Your task to perform on an android device: turn off smart reply in the gmail app Image 0: 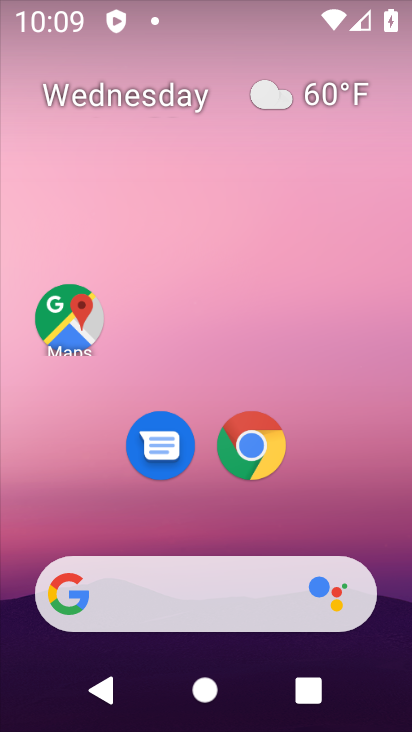
Step 0: drag from (209, 513) to (213, 191)
Your task to perform on an android device: turn off smart reply in the gmail app Image 1: 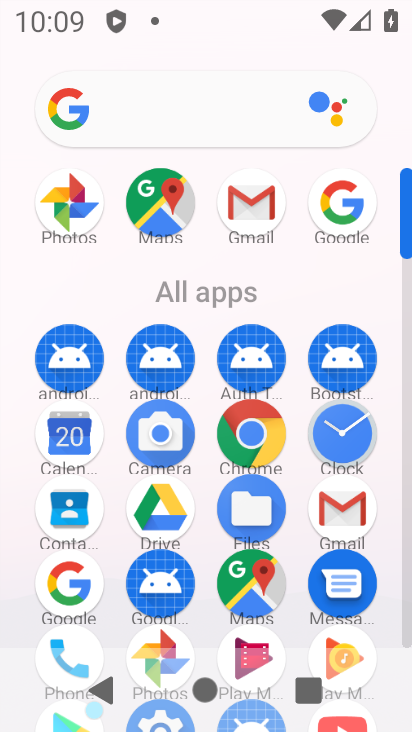
Step 1: click (240, 213)
Your task to perform on an android device: turn off smart reply in the gmail app Image 2: 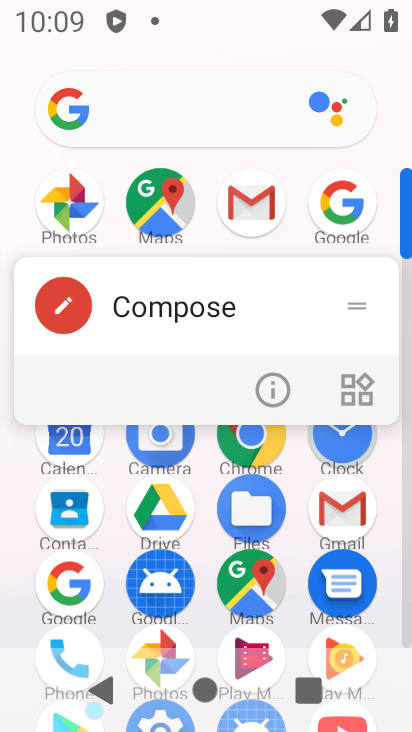
Step 2: click (241, 212)
Your task to perform on an android device: turn off smart reply in the gmail app Image 3: 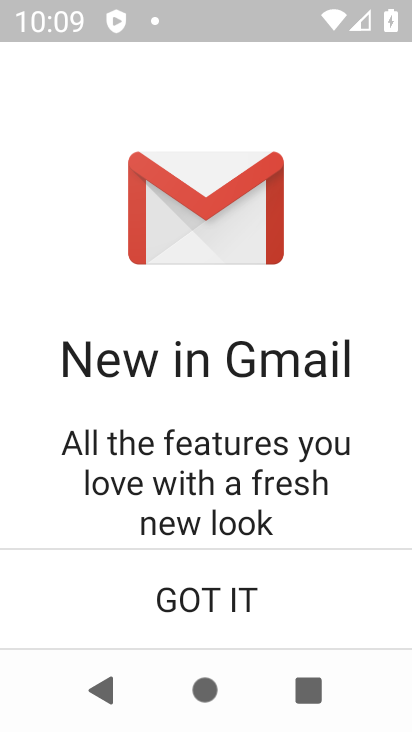
Step 3: click (233, 585)
Your task to perform on an android device: turn off smart reply in the gmail app Image 4: 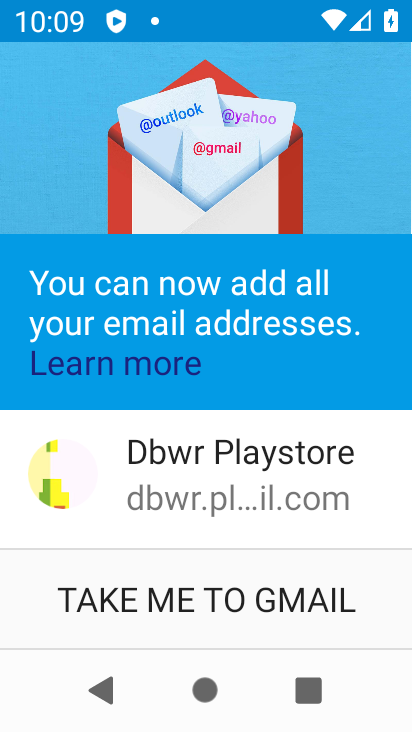
Step 4: click (179, 616)
Your task to perform on an android device: turn off smart reply in the gmail app Image 5: 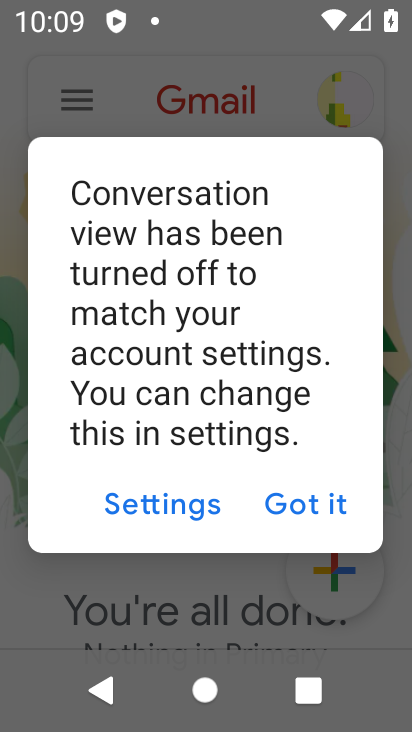
Step 5: click (326, 495)
Your task to perform on an android device: turn off smart reply in the gmail app Image 6: 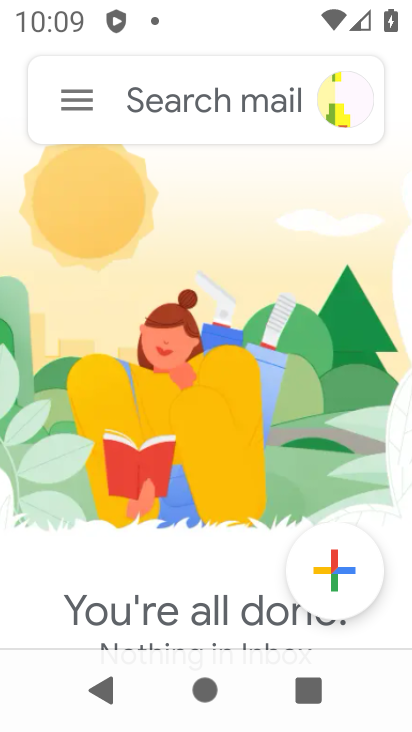
Step 6: click (69, 103)
Your task to perform on an android device: turn off smart reply in the gmail app Image 7: 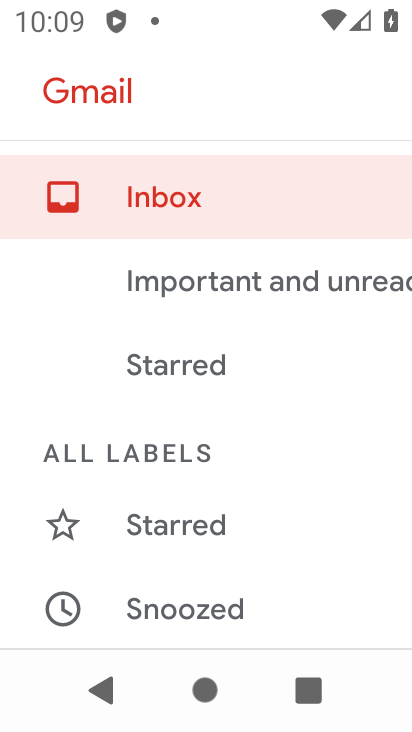
Step 7: drag from (263, 587) to (268, 314)
Your task to perform on an android device: turn off smart reply in the gmail app Image 8: 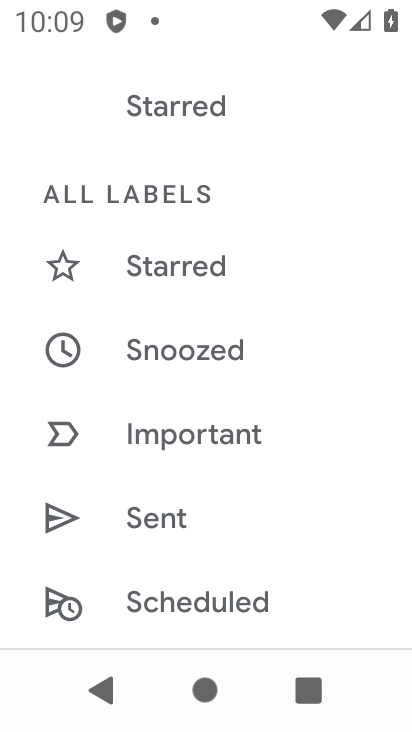
Step 8: drag from (255, 620) to (257, 362)
Your task to perform on an android device: turn off smart reply in the gmail app Image 9: 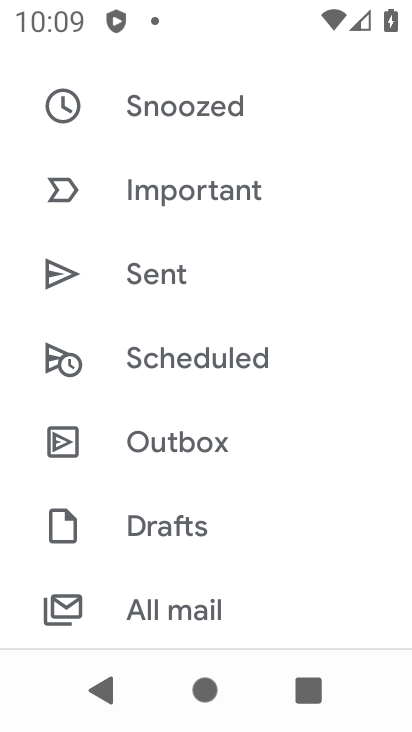
Step 9: drag from (231, 567) to (241, 341)
Your task to perform on an android device: turn off smart reply in the gmail app Image 10: 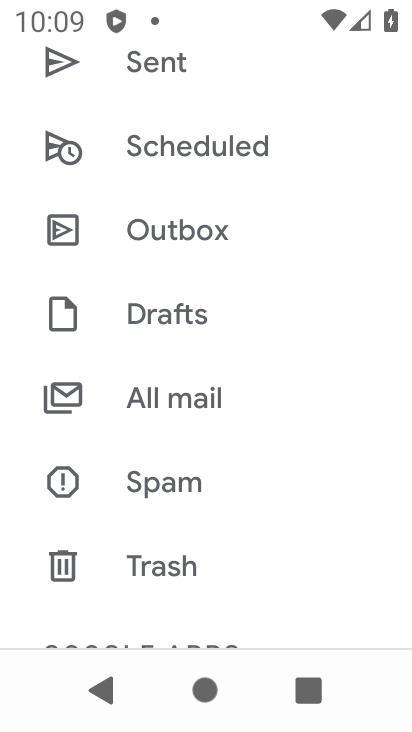
Step 10: drag from (224, 495) to (229, 278)
Your task to perform on an android device: turn off smart reply in the gmail app Image 11: 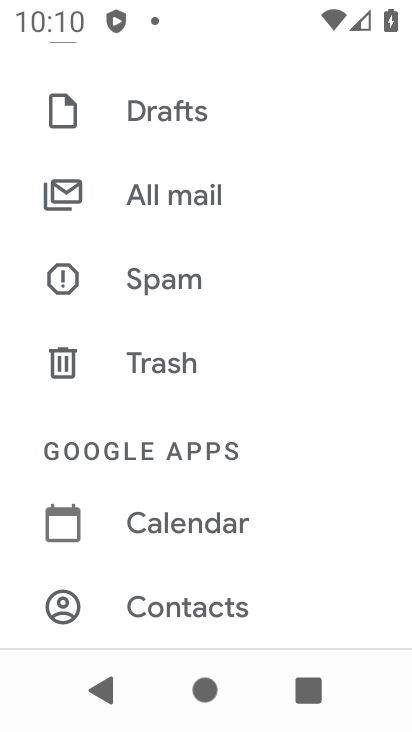
Step 11: drag from (239, 527) to (246, 269)
Your task to perform on an android device: turn off smart reply in the gmail app Image 12: 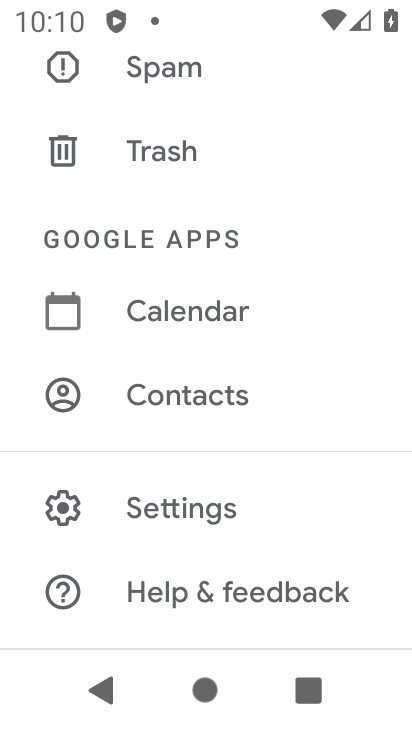
Step 12: click (176, 498)
Your task to perform on an android device: turn off smart reply in the gmail app Image 13: 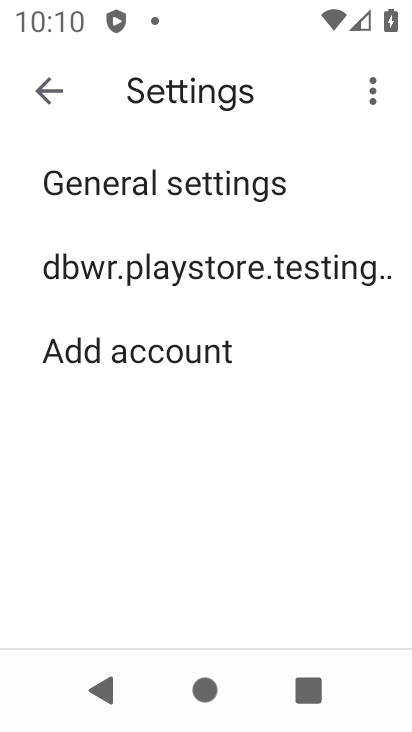
Step 13: click (210, 258)
Your task to perform on an android device: turn off smart reply in the gmail app Image 14: 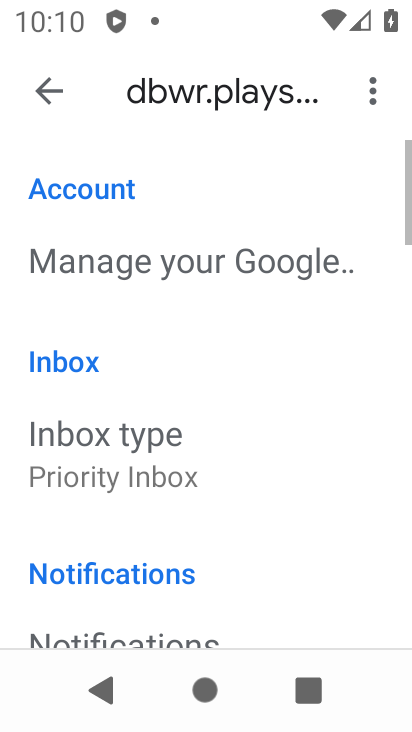
Step 14: drag from (262, 504) to (288, 190)
Your task to perform on an android device: turn off smart reply in the gmail app Image 15: 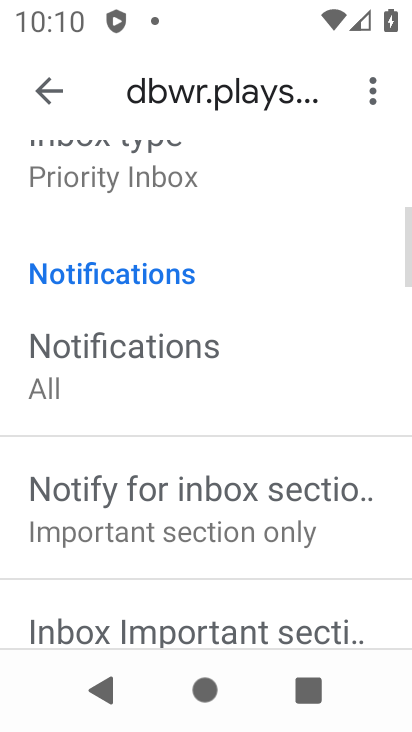
Step 15: drag from (259, 524) to (258, 257)
Your task to perform on an android device: turn off smart reply in the gmail app Image 16: 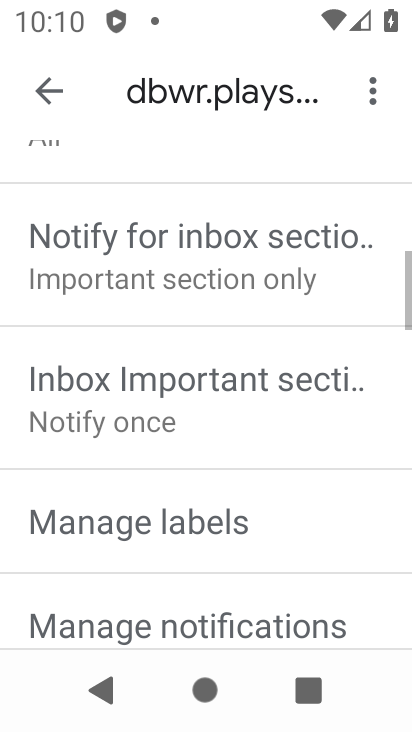
Step 16: drag from (222, 530) to (248, 276)
Your task to perform on an android device: turn off smart reply in the gmail app Image 17: 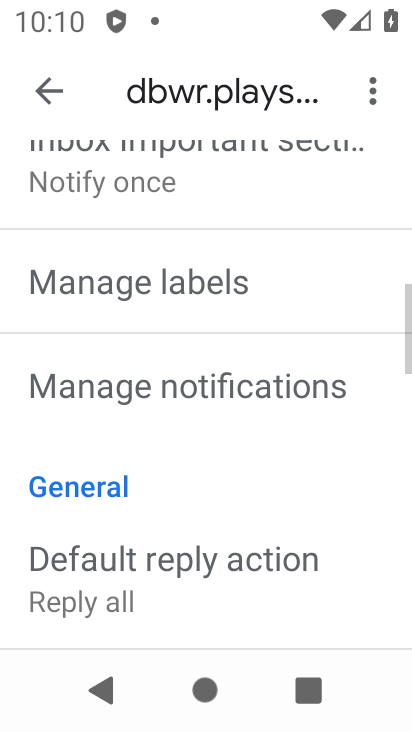
Step 17: drag from (241, 503) to (257, 303)
Your task to perform on an android device: turn off smart reply in the gmail app Image 18: 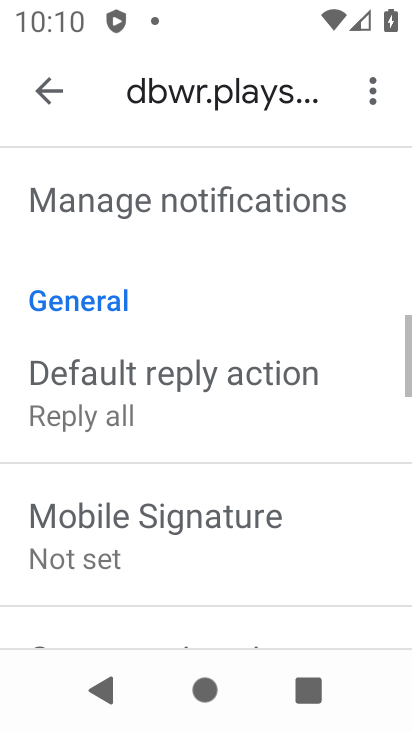
Step 18: drag from (268, 472) to (281, 321)
Your task to perform on an android device: turn off smart reply in the gmail app Image 19: 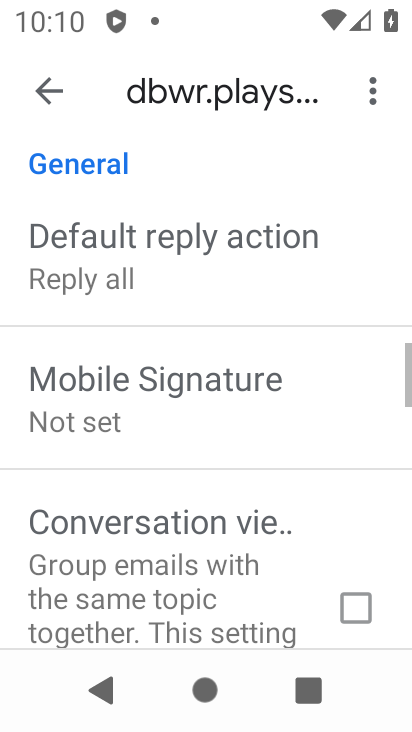
Step 19: drag from (259, 565) to (274, 346)
Your task to perform on an android device: turn off smart reply in the gmail app Image 20: 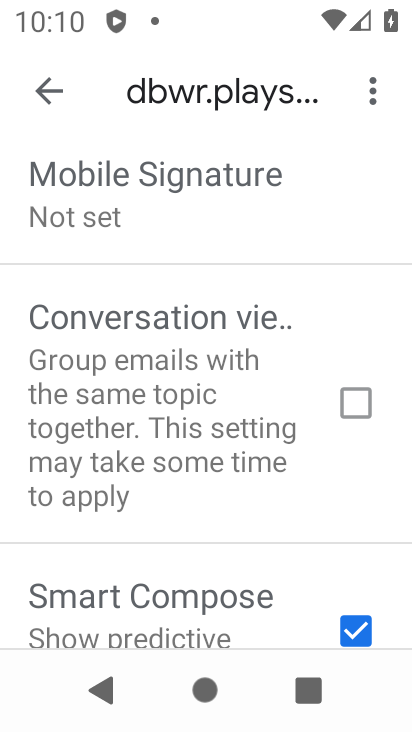
Step 20: drag from (237, 552) to (264, 386)
Your task to perform on an android device: turn off smart reply in the gmail app Image 21: 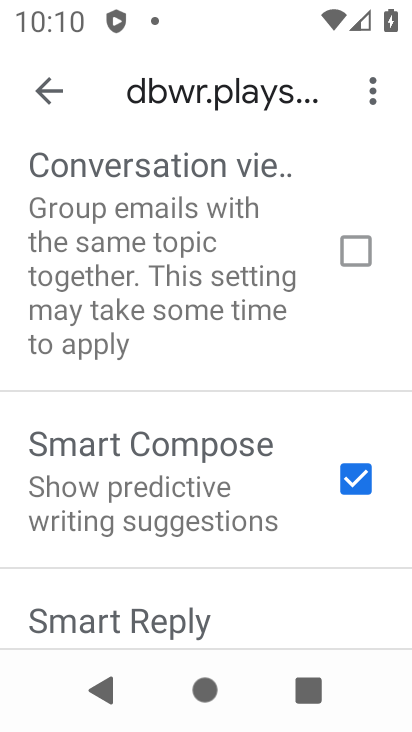
Step 21: click (357, 473)
Your task to perform on an android device: turn off smart reply in the gmail app Image 22: 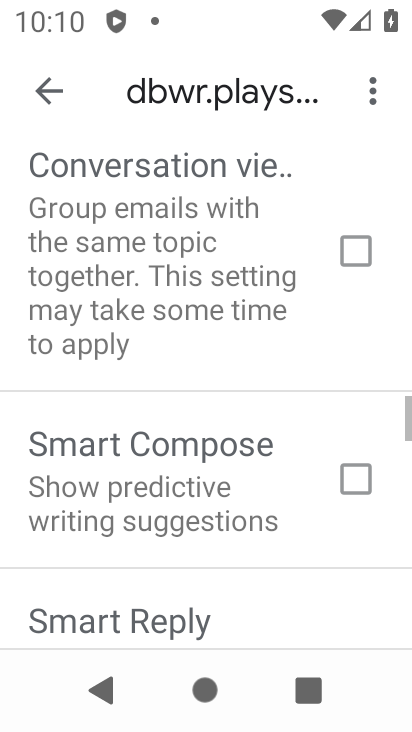
Step 22: click (357, 473)
Your task to perform on an android device: turn off smart reply in the gmail app Image 23: 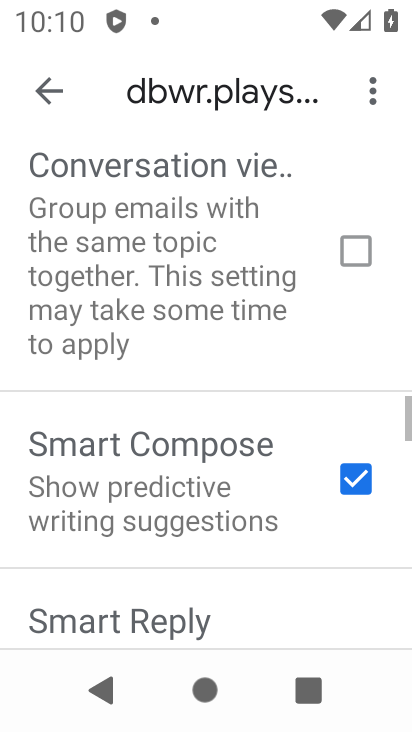
Step 23: drag from (251, 573) to (276, 337)
Your task to perform on an android device: turn off smart reply in the gmail app Image 24: 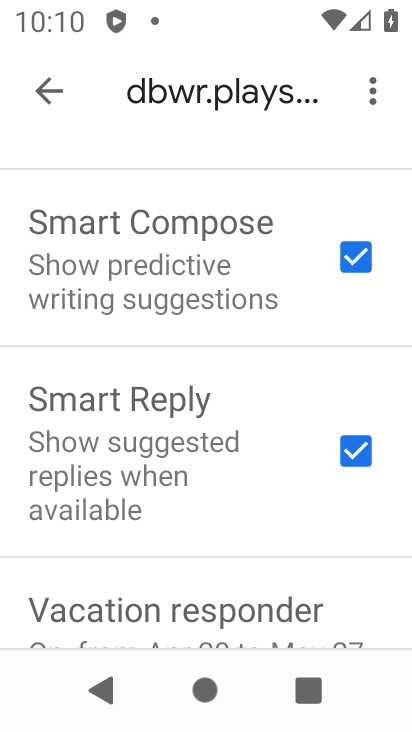
Step 24: click (349, 441)
Your task to perform on an android device: turn off smart reply in the gmail app Image 25: 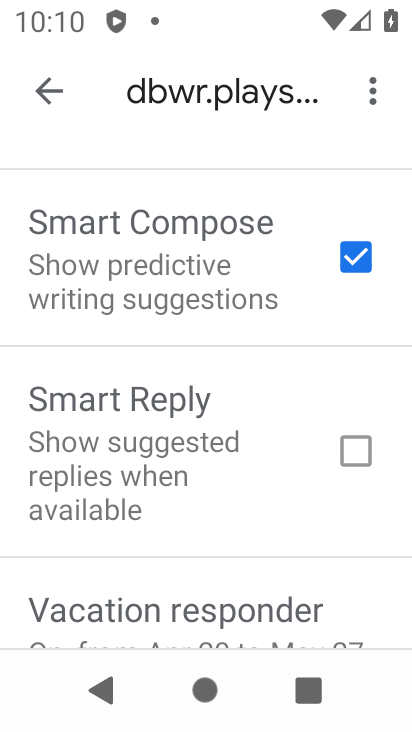
Step 25: task complete